Your task to perform on an android device: Search for pizza restaurants on Maps Image 0: 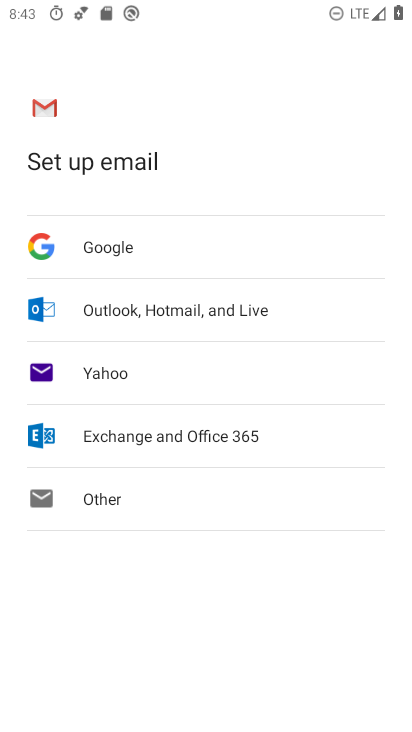
Step 0: press back button
Your task to perform on an android device: Search for pizza restaurants on Maps Image 1: 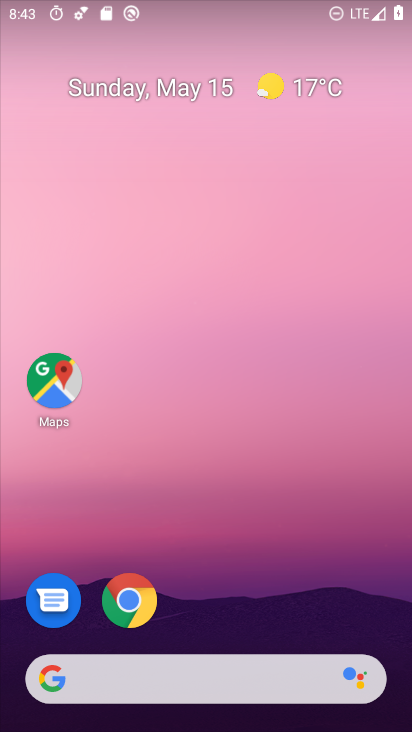
Step 1: click (51, 386)
Your task to perform on an android device: Search for pizza restaurants on Maps Image 2: 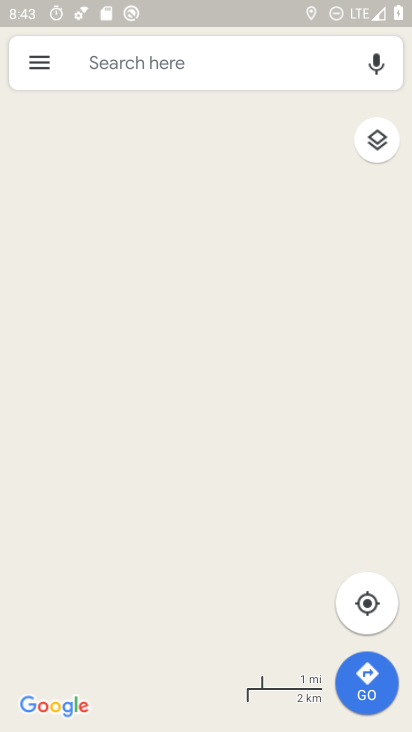
Step 2: click (152, 62)
Your task to perform on an android device: Search for pizza restaurants on Maps Image 3: 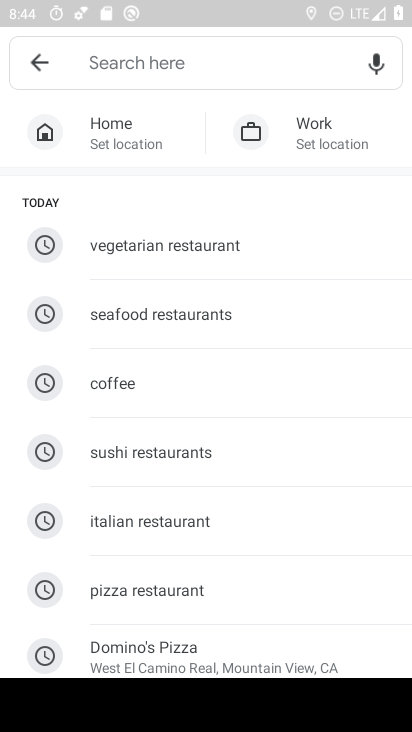
Step 3: type "pizza restaurants"
Your task to perform on an android device: Search for pizza restaurants on Maps Image 4: 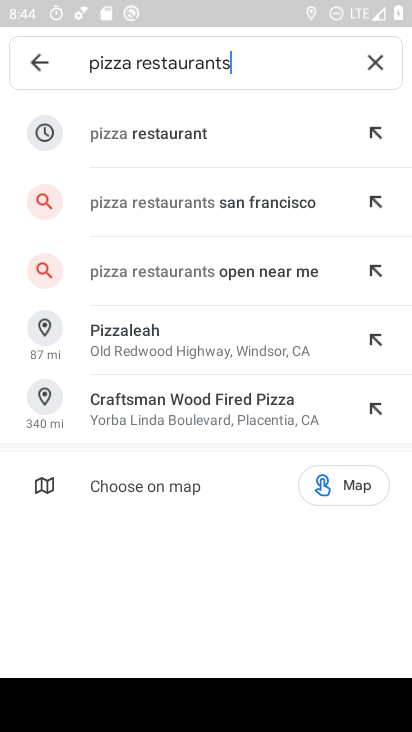
Step 4: click (127, 135)
Your task to perform on an android device: Search for pizza restaurants on Maps Image 5: 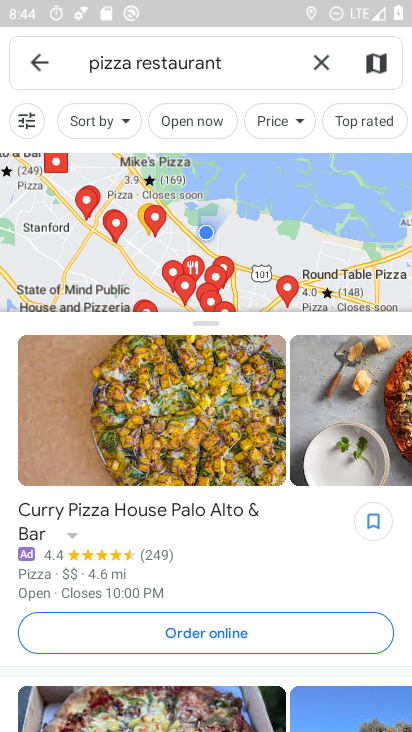
Step 5: task complete